Your task to perform on an android device: visit the assistant section in the google photos Image 0: 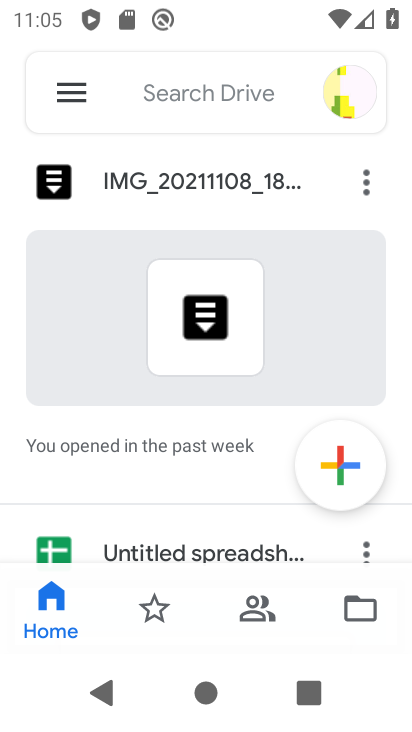
Step 0: press home button
Your task to perform on an android device: visit the assistant section in the google photos Image 1: 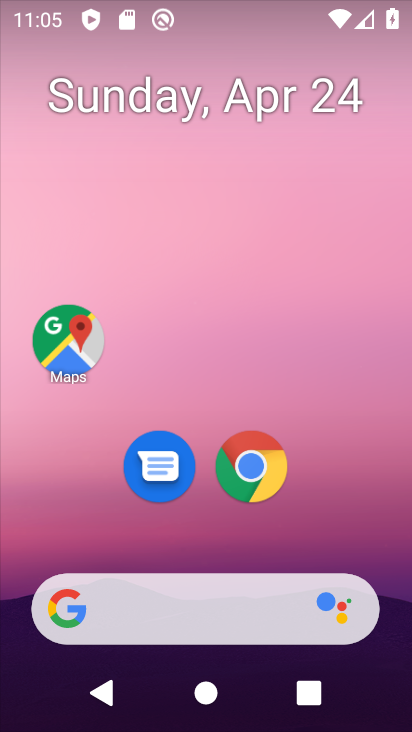
Step 1: drag from (163, 197) to (182, 1)
Your task to perform on an android device: visit the assistant section in the google photos Image 2: 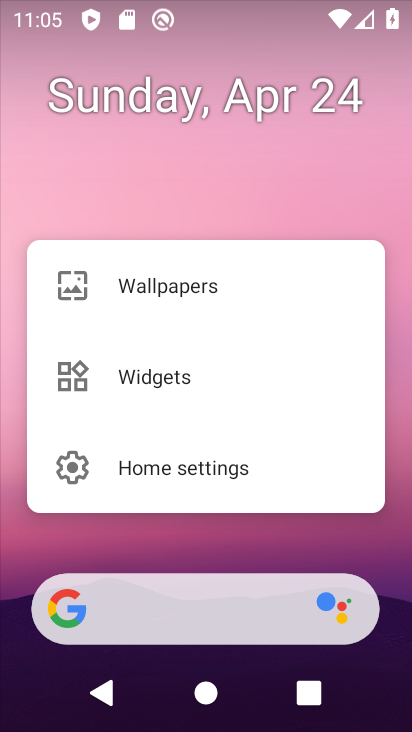
Step 2: click (286, 545)
Your task to perform on an android device: visit the assistant section in the google photos Image 3: 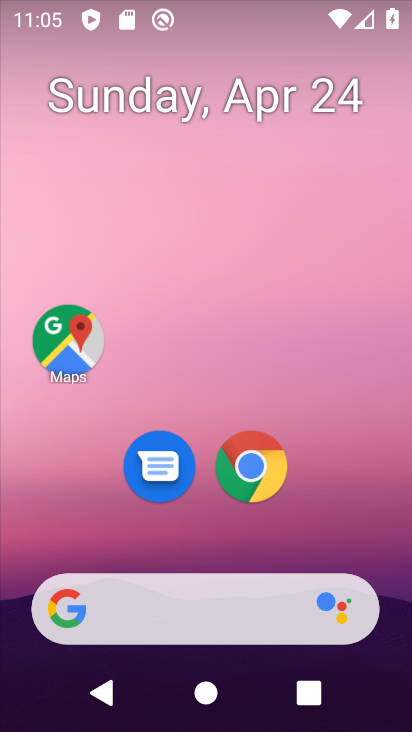
Step 3: drag from (357, 569) to (298, 58)
Your task to perform on an android device: visit the assistant section in the google photos Image 4: 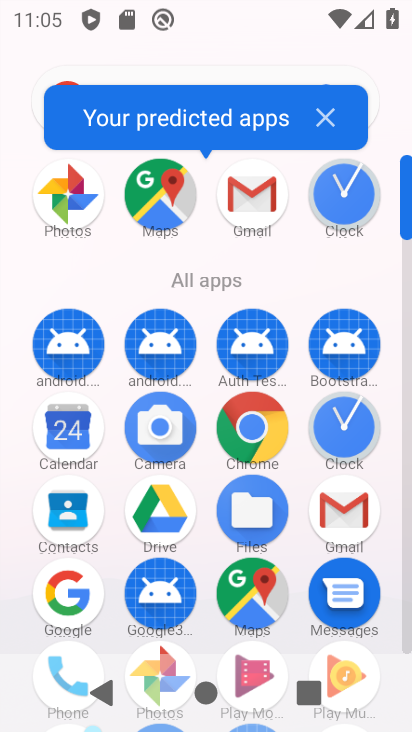
Step 4: click (77, 203)
Your task to perform on an android device: visit the assistant section in the google photos Image 5: 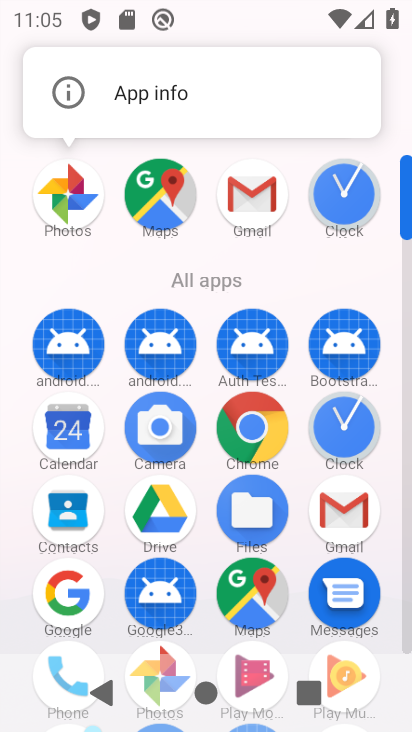
Step 5: click (76, 203)
Your task to perform on an android device: visit the assistant section in the google photos Image 6: 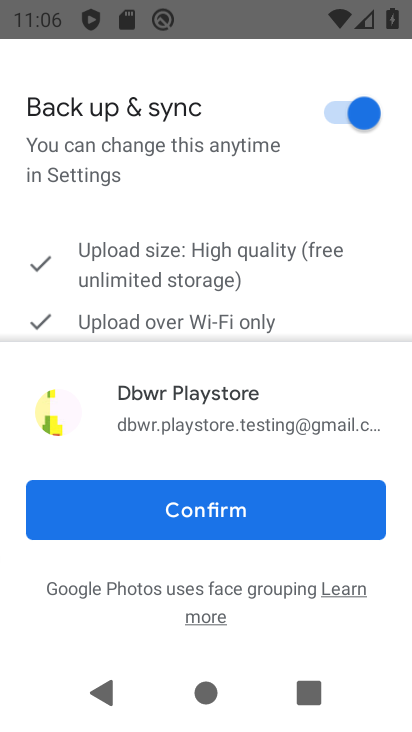
Step 6: click (211, 514)
Your task to perform on an android device: visit the assistant section in the google photos Image 7: 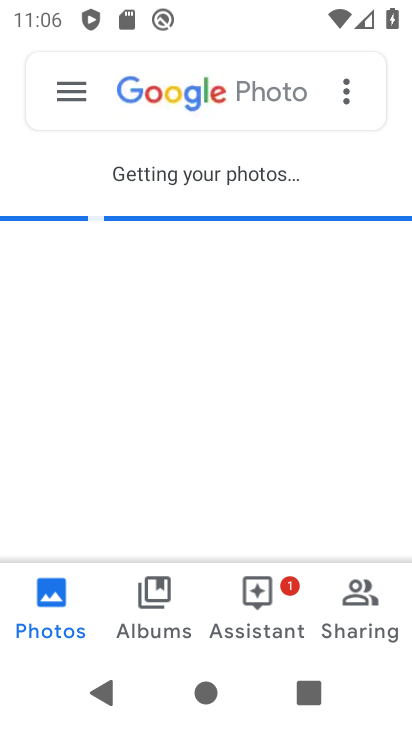
Step 7: click (265, 595)
Your task to perform on an android device: visit the assistant section in the google photos Image 8: 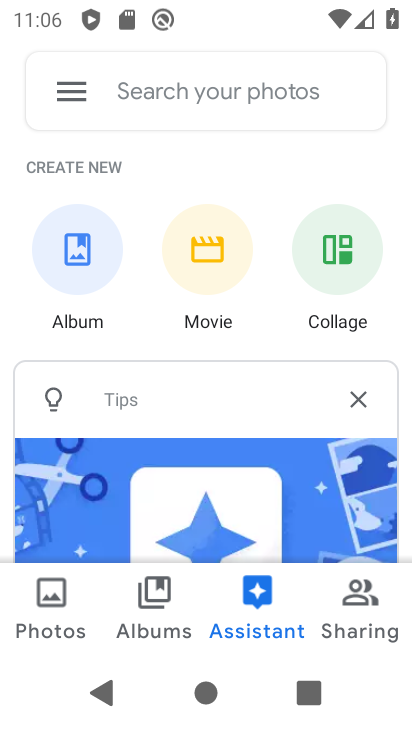
Step 8: task complete